Your task to perform on an android device: Check the news Image 0: 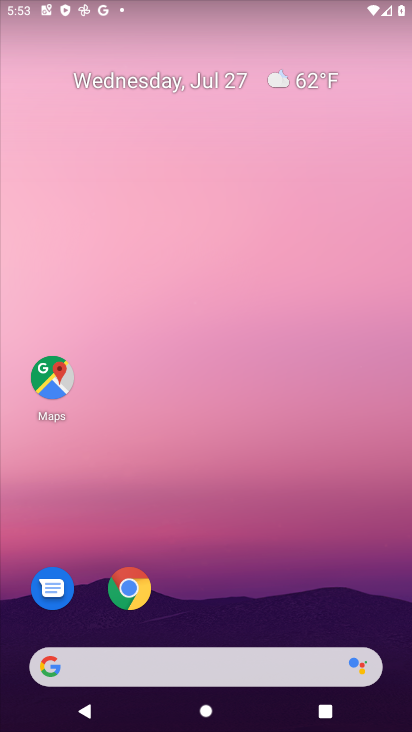
Step 0: click (159, 664)
Your task to perform on an android device: Check the news Image 1: 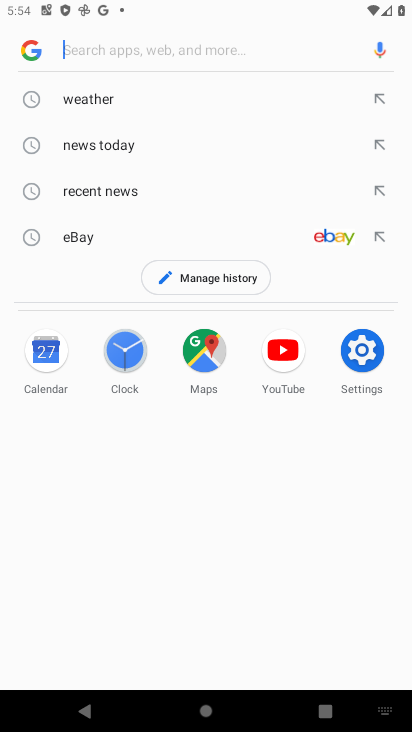
Step 1: type "news"
Your task to perform on an android device: Check the news Image 2: 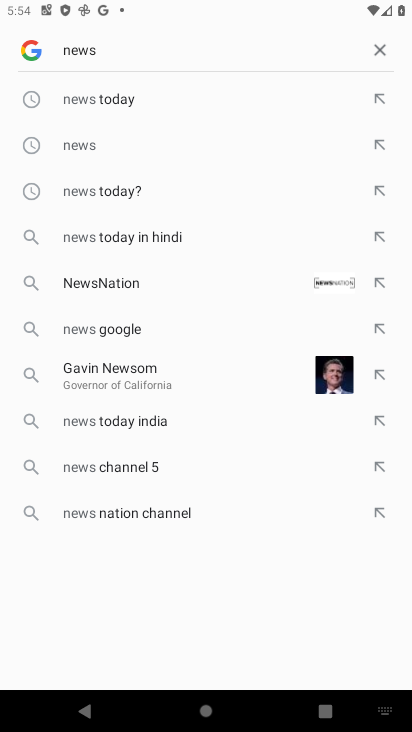
Step 2: click (79, 146)
Your task to perform on an android device: Check the news Image 3: 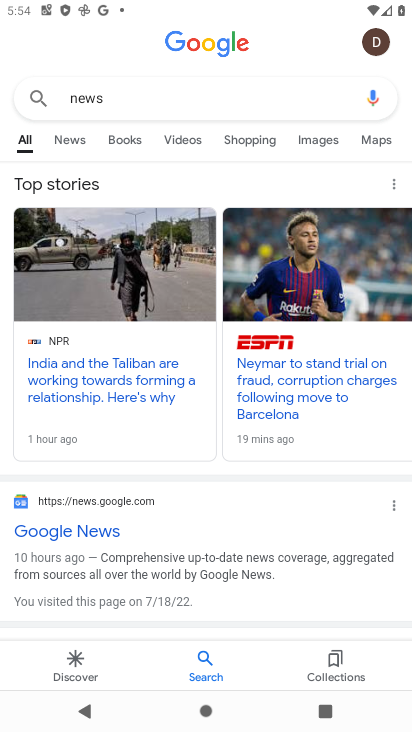
Step 3: task complete